Your task to perform on an android device: Open sound settings Image 0: 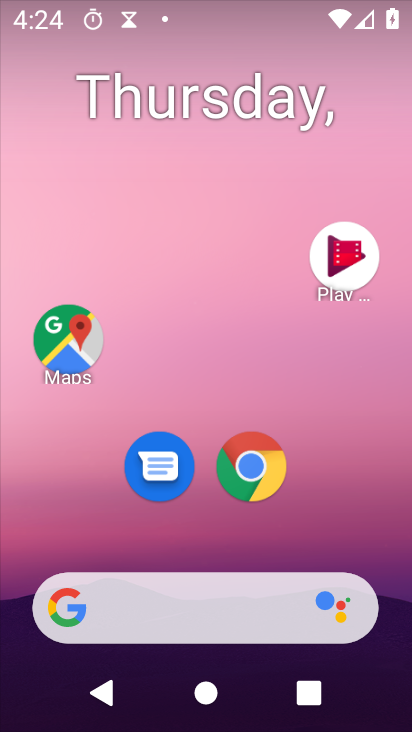
Step 0: drag from (196, 557) to (178, 21)
Your task to perform on an android device: Open sound settings Image 1: 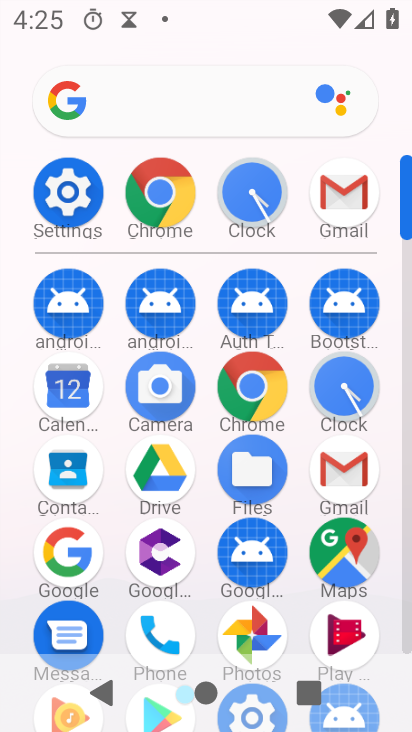
Step 1: click (76, 194)
Your task to perform on an android device: Open sound settings Image 2: 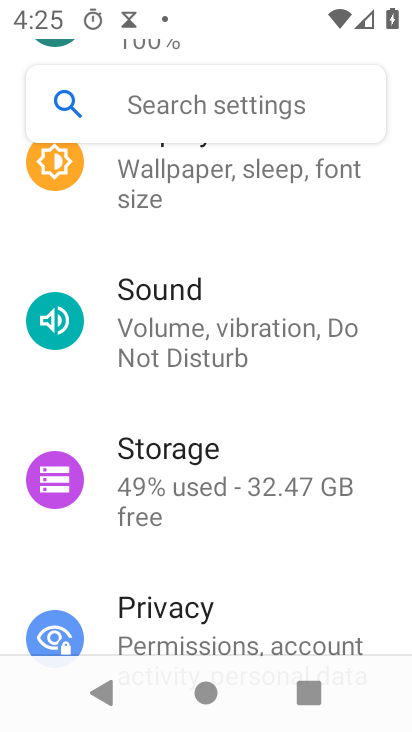
Step 2: drag from (227, 220) to (284, 271)
Your task to perform on an android device: Open sound settings Image 3: 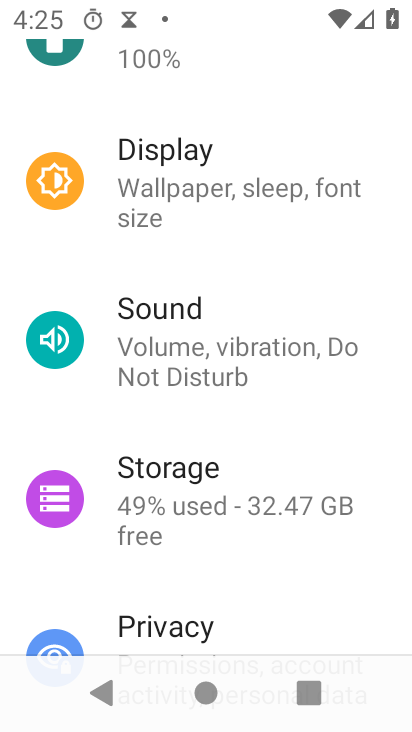
Step 3: click (244, 415)
Your task to perform on an android device: Open sound settings Image 4: 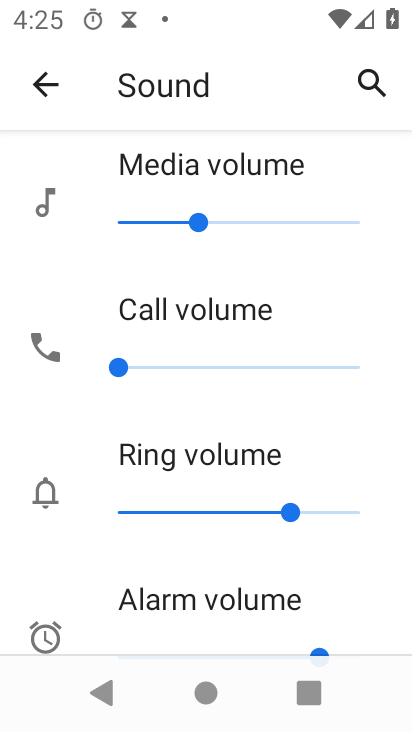
Step 4: task complete